Your task to perform on an android device: Open Amazon Image 0: 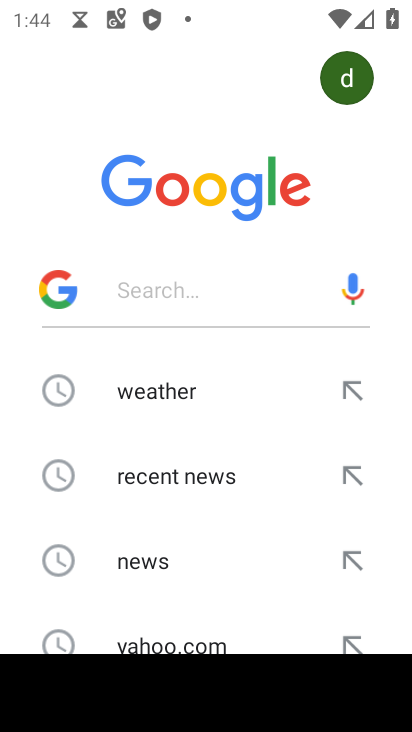
Step 0: press home button
Your task to perform on an android device: Open Amazon Image 1: 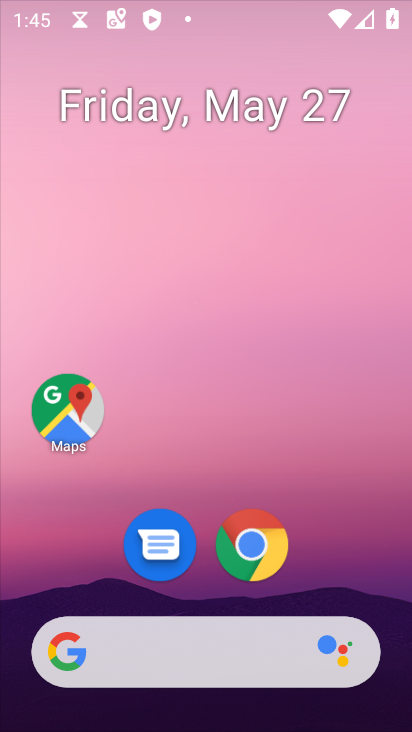
Step 1: click (253, 553)
Your task to perform on an android device: Open Amazon Image 2: 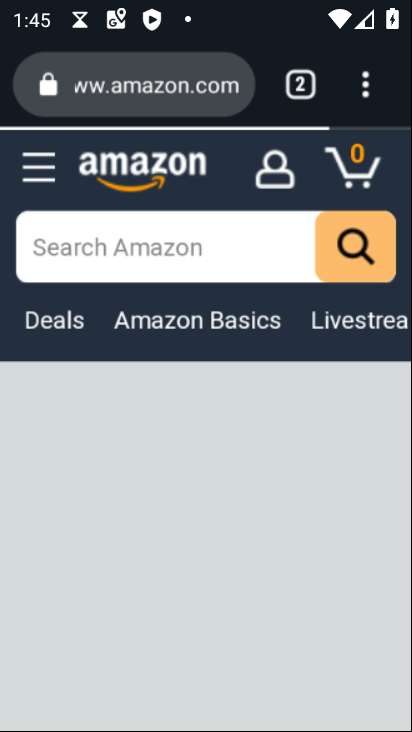
Step 2: task complete